Your task to perform on an android device: open wifi settings Image 0: 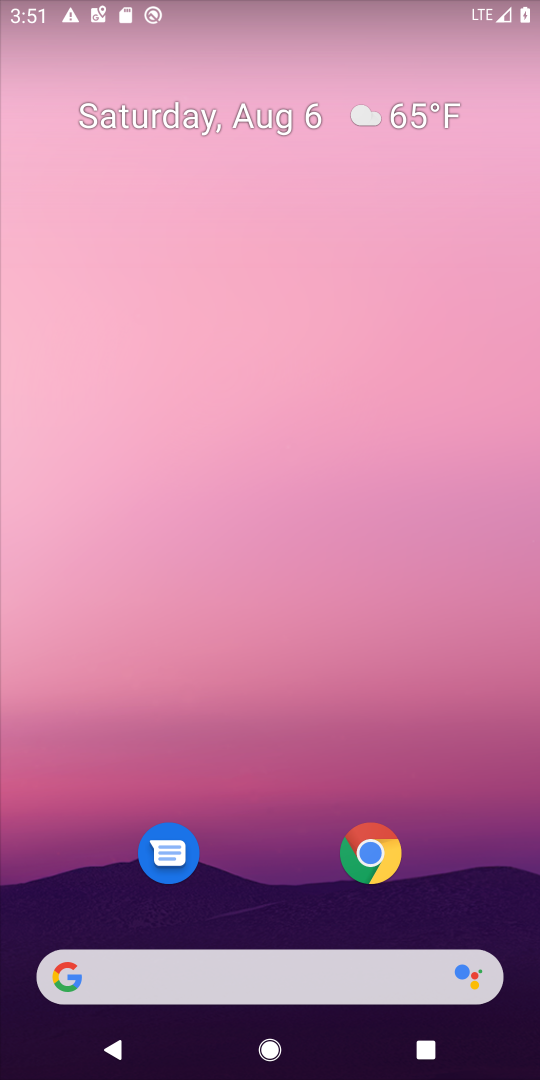
Step 0: drag from (81, 13) to (137, 722)
Your task to perform on an android device: open wifi settings Image 1: 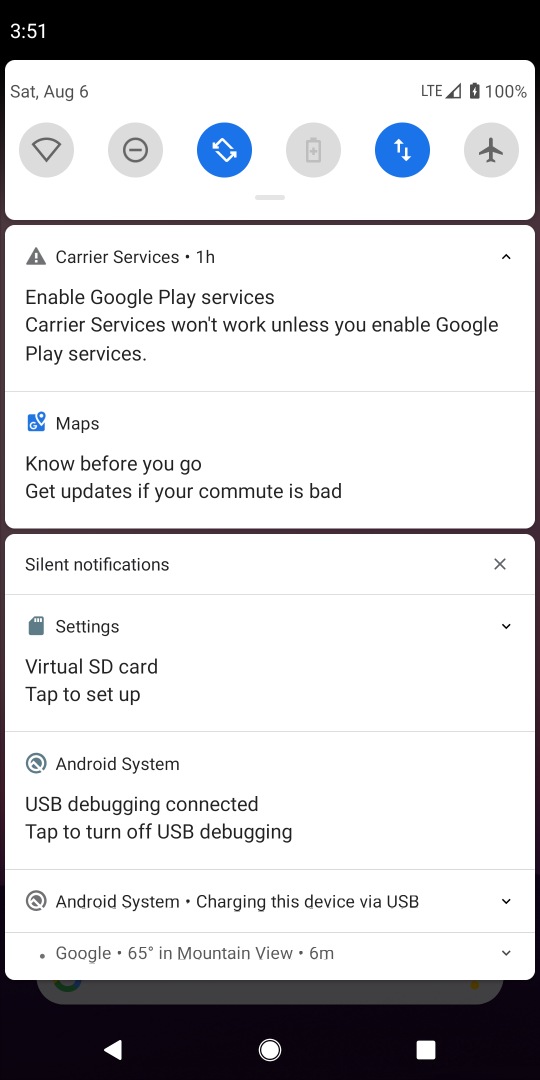
Step 1: click (36, 149)
Your task to perform on an android device: open wifi settings Image 2: 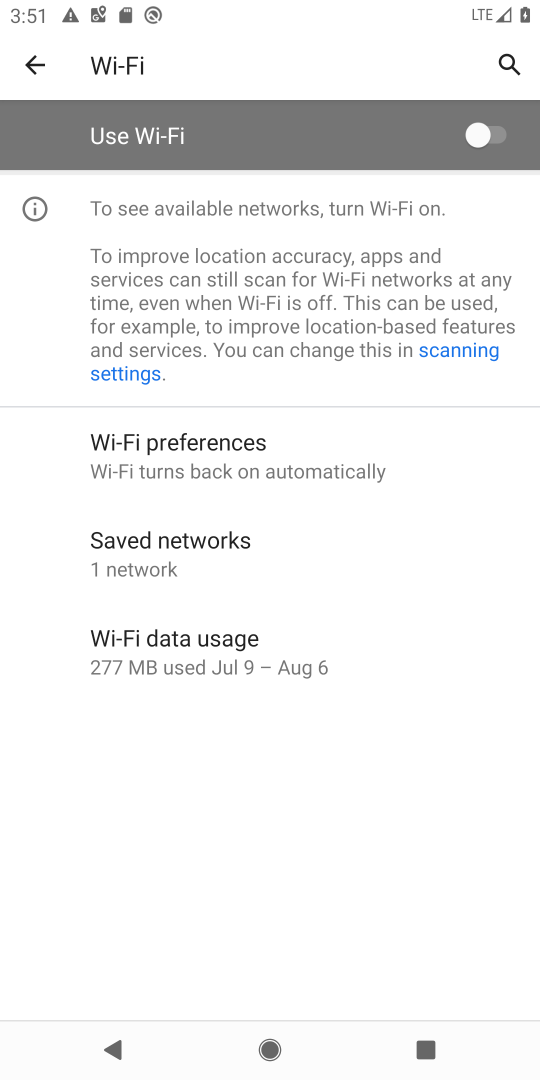
Step 2: task complete